Your task to perform on an android device: delete the emails in spam in the gmail app Image 0: 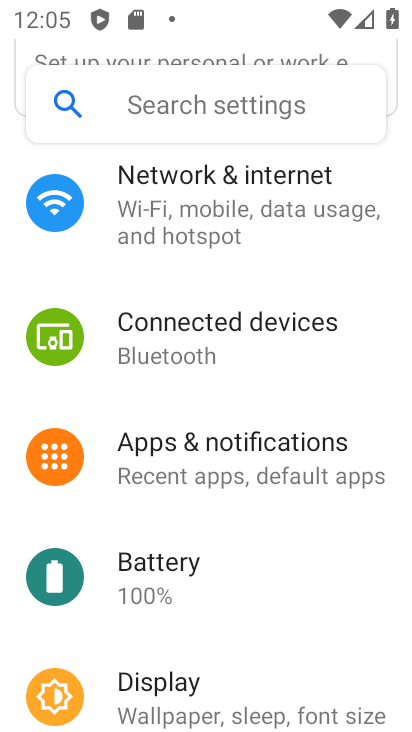
Step 0: press home button
Your task to perform on an android device: delete the emails in spam in the gmail app Image 1: 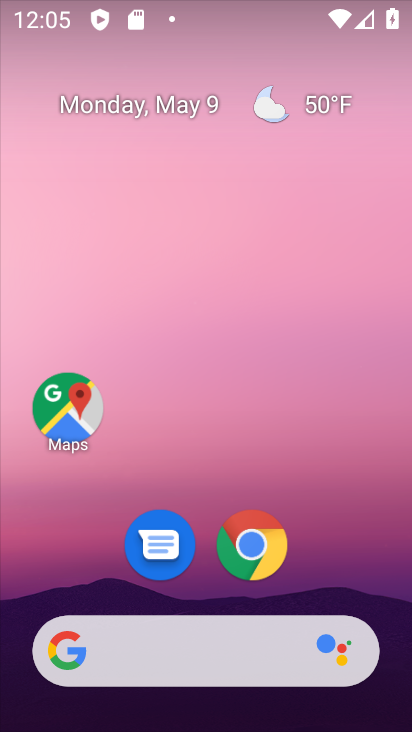
Step 1: drag from (216, 579) to (217, 150)
Your task to perform on an android device: delete the emails in spam in the gmail app Image 2: 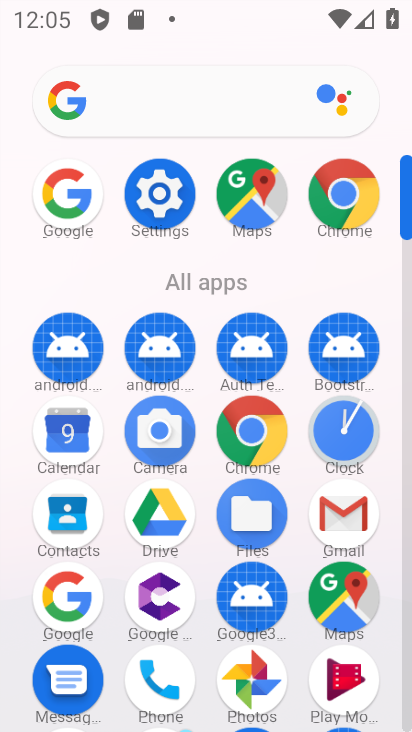
Step 2: click (332, 524)
Your task to perform on an android device: delete the emails in spam in the gmail app Image 3: 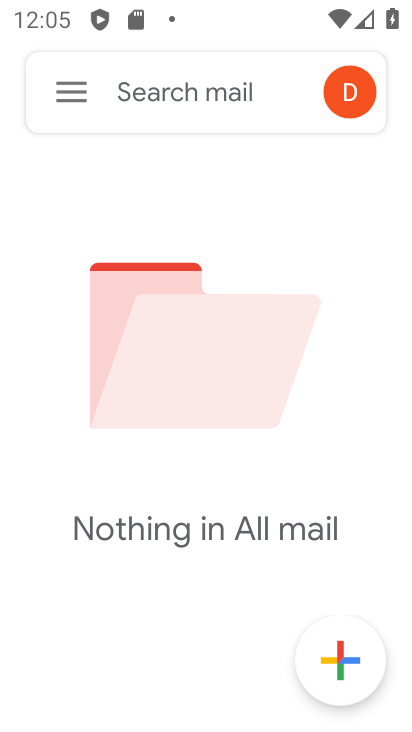
Step 3: click (63, 97)
Your task to perform on an android device: delete the emails in spam in the gmail app Image 4: 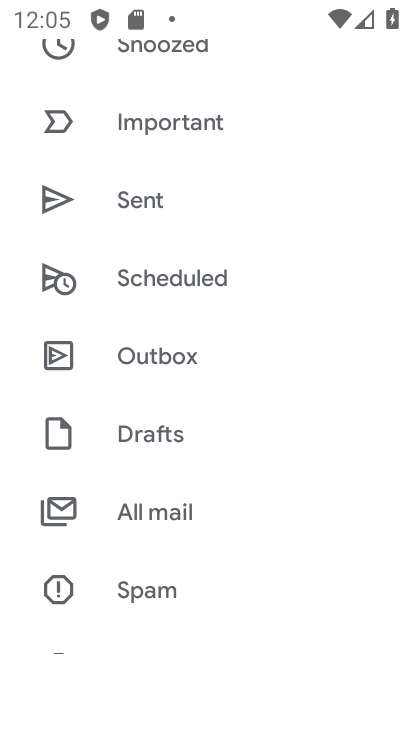
Step 4: drag from (204, 235) to (246, 227)
Your task to perform on an android device: delete the emails in spam in the gmail app Image 5: 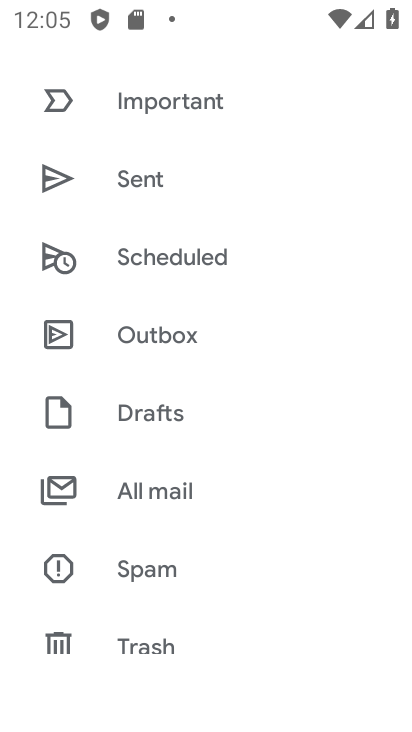
Step 5: click (191, 547)
Your task to perform on an android device: delete the emails in spam in the gmail app Image 6: 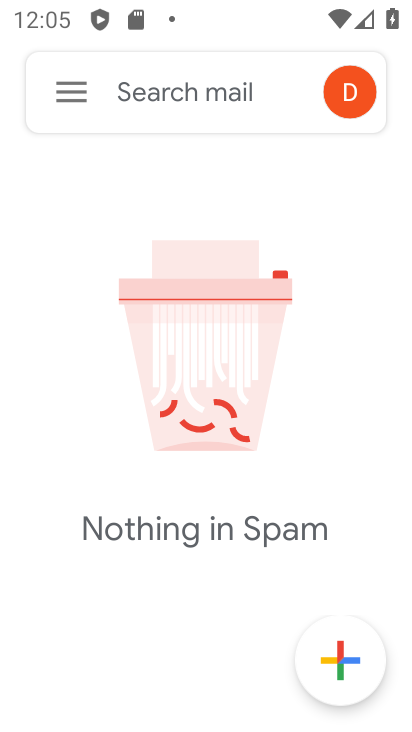
Step 6: task complete